Your task to perform on an android device: turn off sleep mode Image 0: 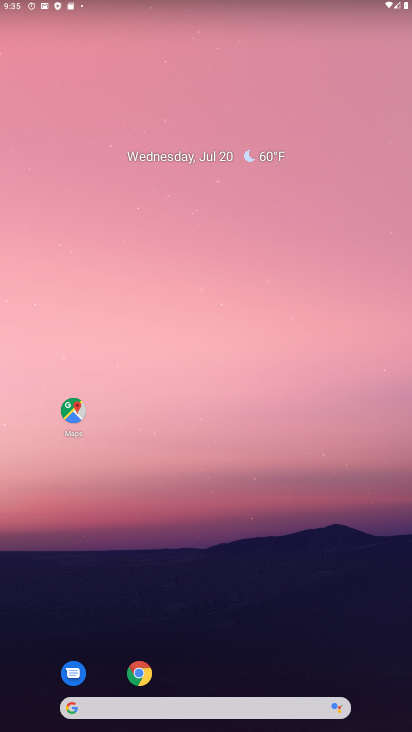
Step 0: drag from (239, 672) to (233, 82)
Your task to perform on an android device: turn off sleep mode Image 1: 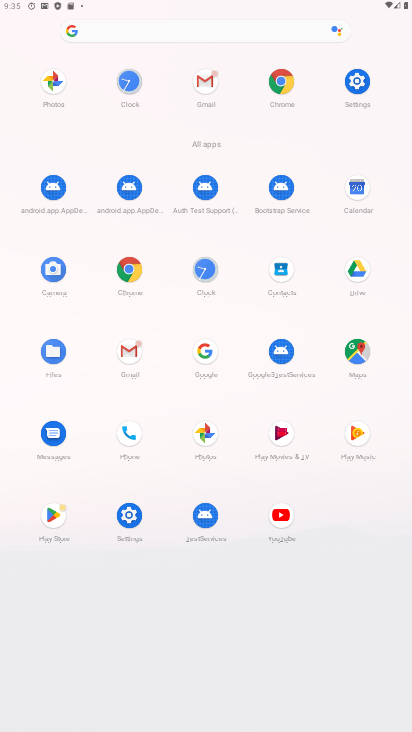
Step 1: click (352, 89)
Your task to perform on an android device: turn off sleep mode Image 2: 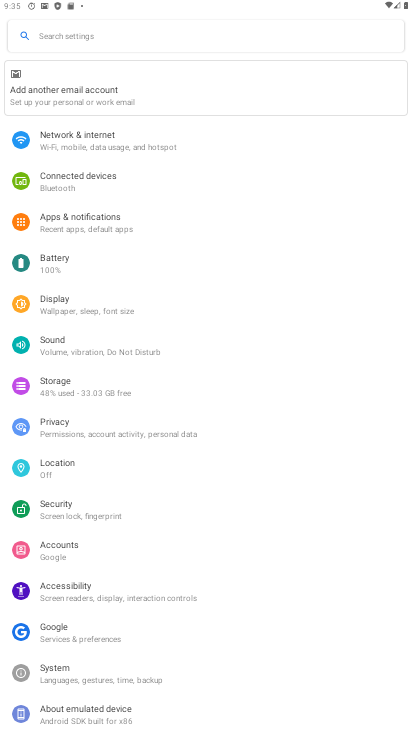
Step 2: click (193, 43)
Your task to perform on an android device: turn off sleep mode Image 3: 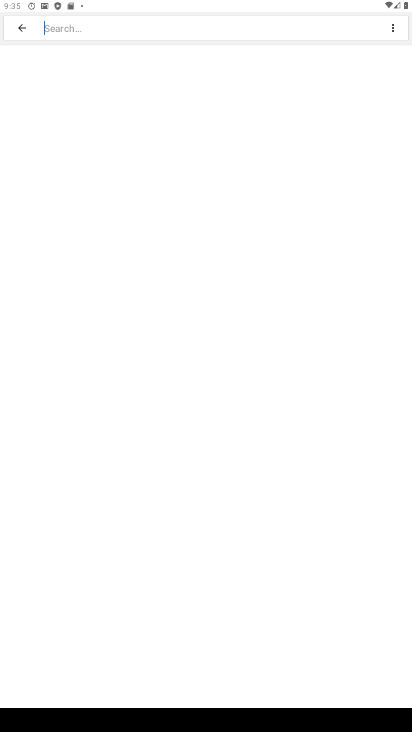
Step 3: type "sleep mode"
Your task to perform on an android device: turn off sleep mode Image 4: 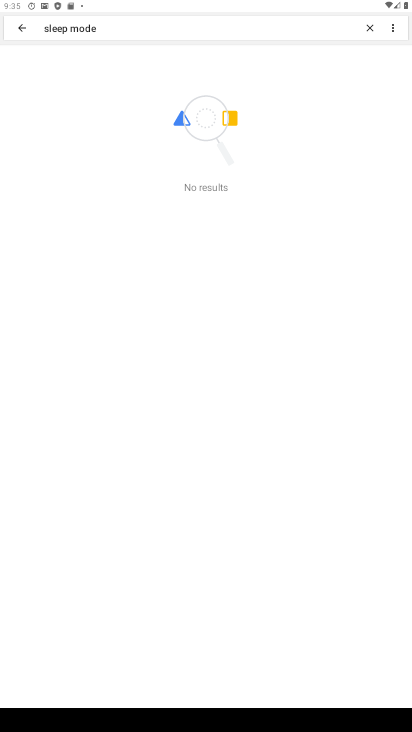
Step 4: task complete